Your task to perform on an android device: delete browsing data in the chrome app Image 0: 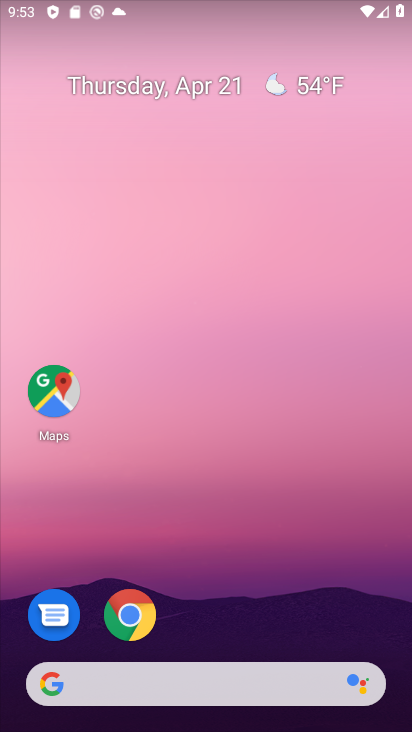
Step 0: drag from (307, 626) to (286, 60)
Your task to perform on an android device: delete browsing data in the chrome app Image 1: 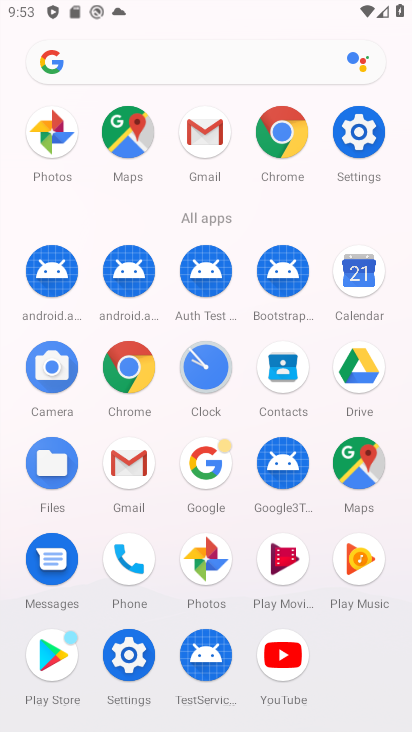
Step 1: click (285, 124)
Your task to perform on an android device: delete browsing data in the chrome app Image 2: 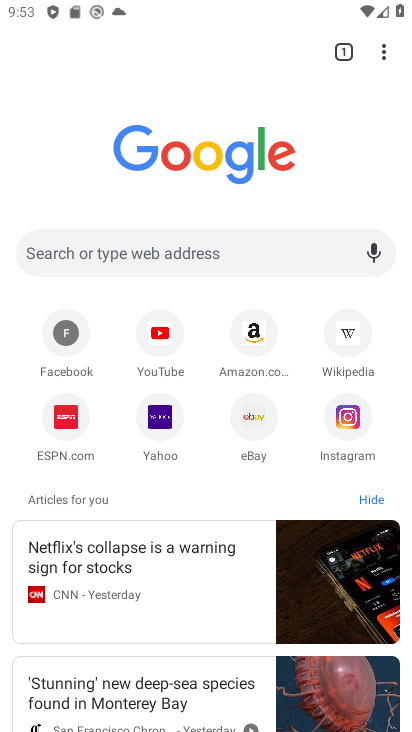
Step 2: click (382, 50)
Your task to perform on an android device: delete browsing data in the chrome app Image 3: 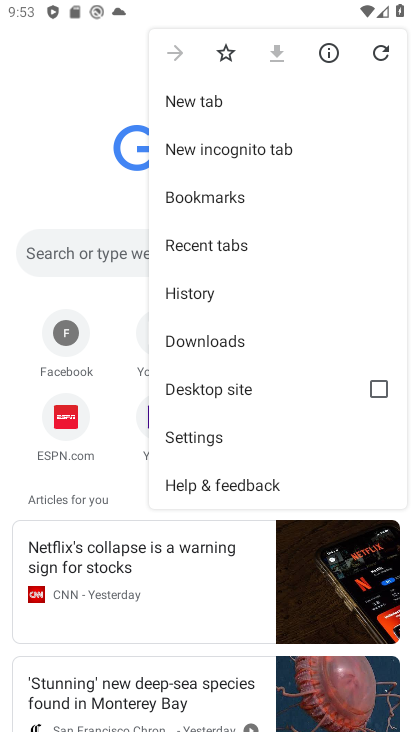
Step 3: click (209, 295)
Your task to perform on an android device: delete browsing data in the chrome app Image 4: 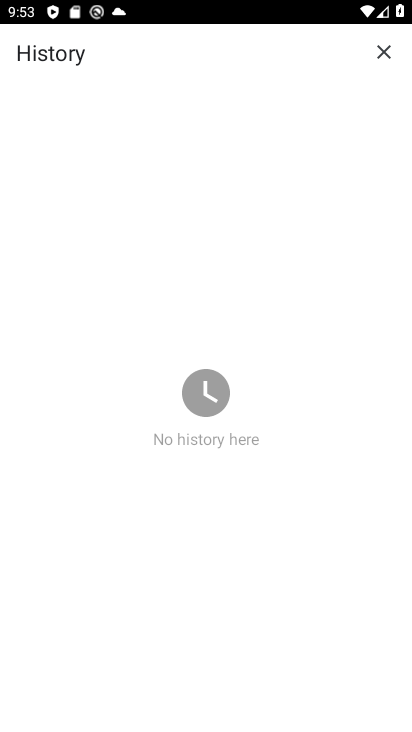
Step 4: task complete